Your task to perform on an android device: Show me popular games on the Play Store Image 0: 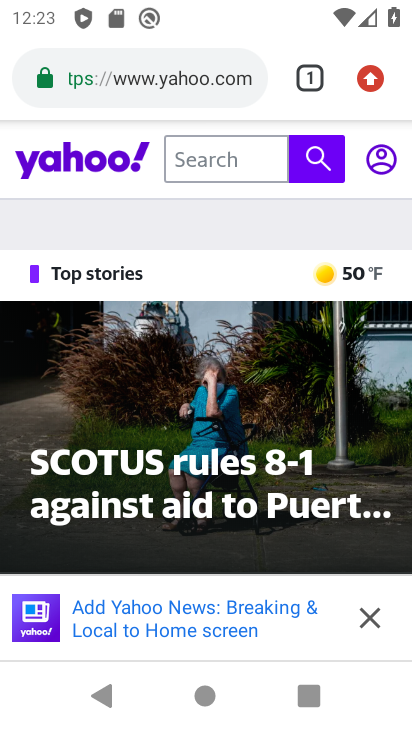
Step 0: press home button
Your task to perform on an android device: Show me popular games on the Play Store Image 1: 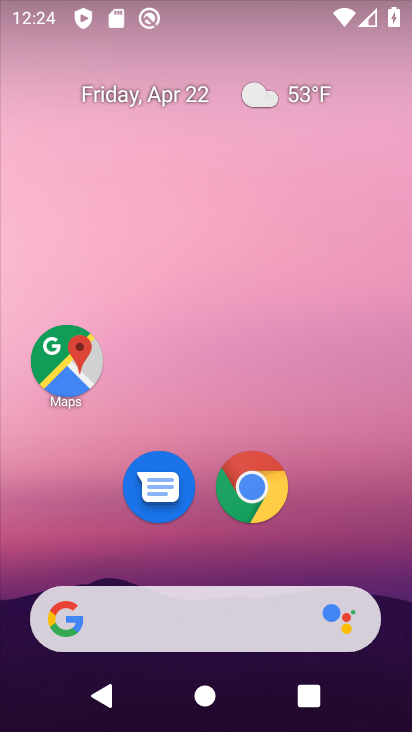
Step 1: drag from (201, 558) to (221, 129)
Your task to perform on an android device: Show me popular games on the Play Store Image 2: 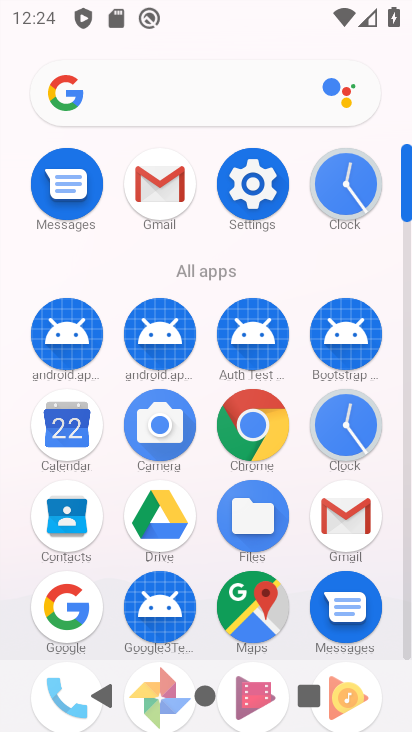
Step 2: drag from (205, 640) to (232, 239)
Your task to perform on an android device: Show me popular games on the Play Store Image 3: 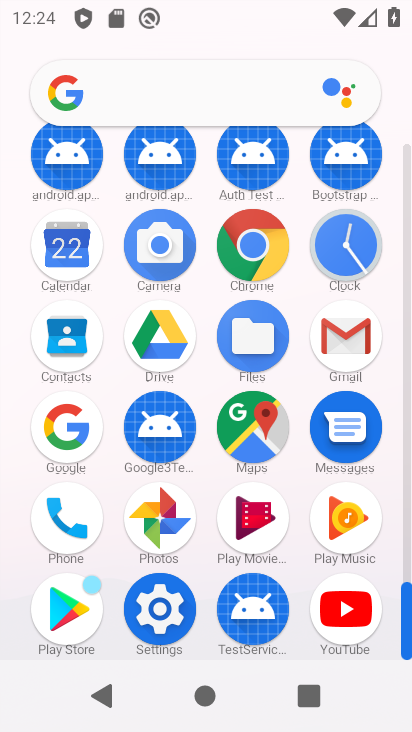
Step 3: click (74, 600)
Your task to perform on an android device: Show me popular games on the Play Store Image 4: 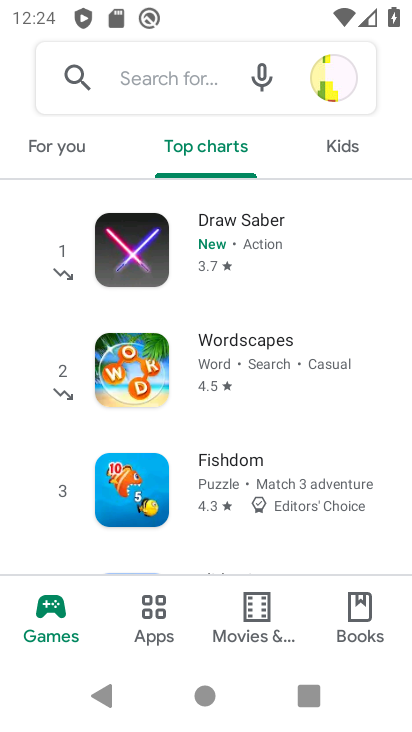
Step 4: task complete